Your task to perform on an android device: Do I have any events this weekend? Image 0: 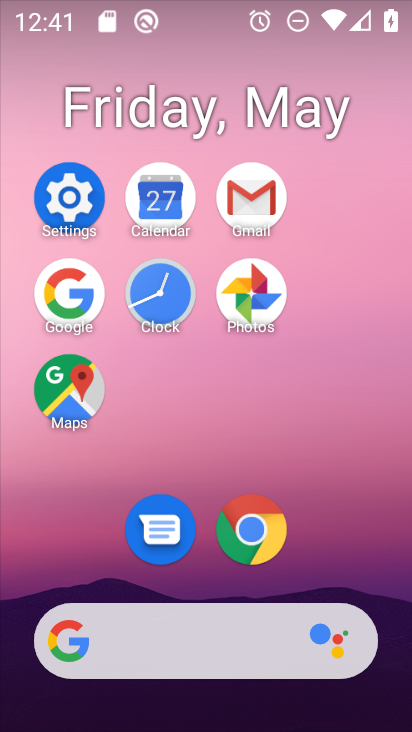
Step 0: click (157, 231)
Your task to perform on an android device: Do I have any events this weekend? Image 1: 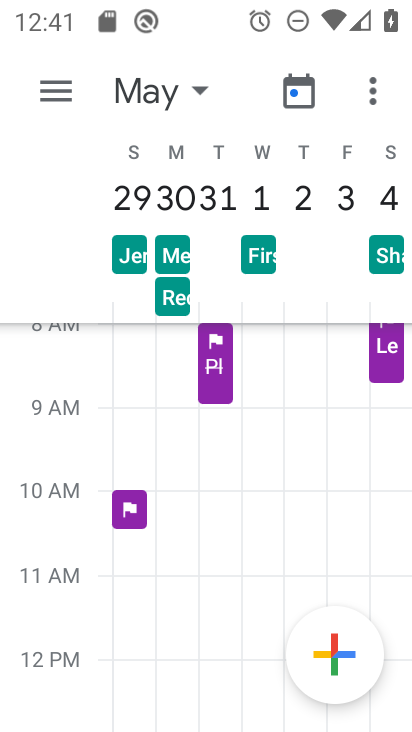
Step 1: task complete